Your task to perform on an android device: Go to ESPN.com Image 0: 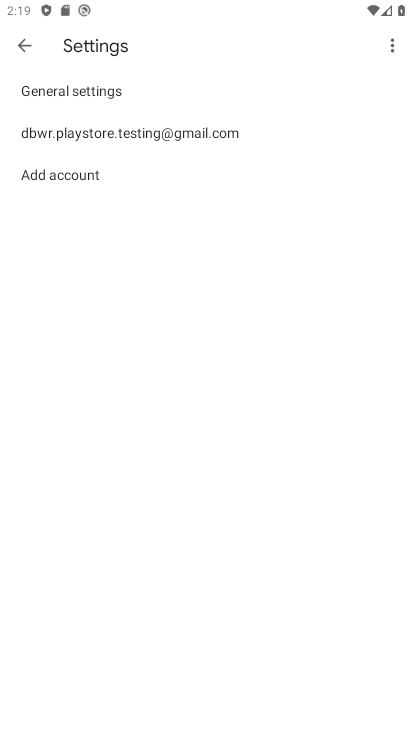
Step 0: press home button
Your task to perform on an android device: Go to ESPN.com Image 1: 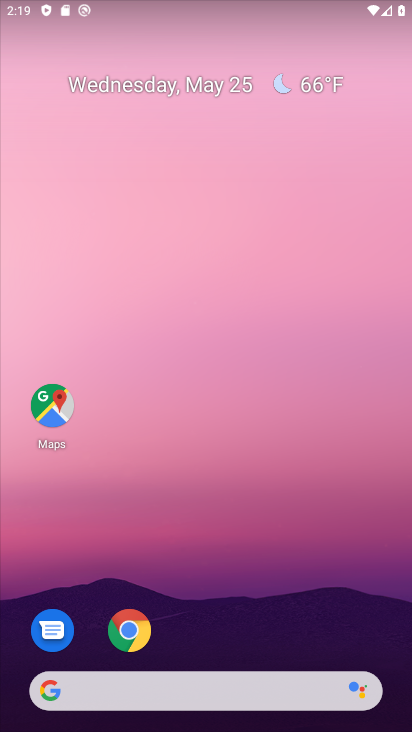
Step 1: click (127, 623)
Your task to perform on an android device: Go to ESPN.com Image 2: 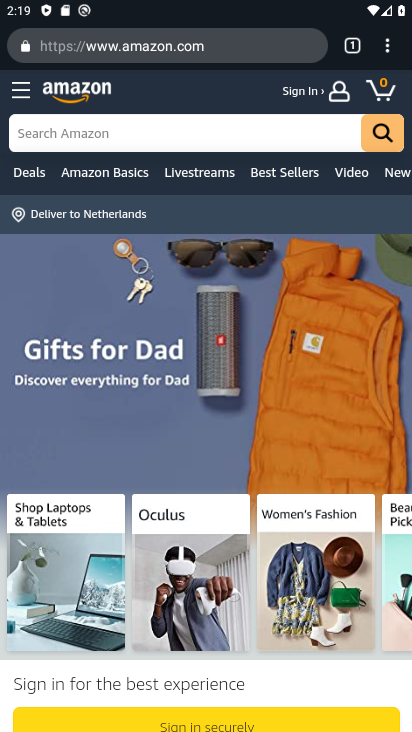
Step 2: click (351, 46)
Your task to perform on an android device: Go to ESPN.com Image 3: 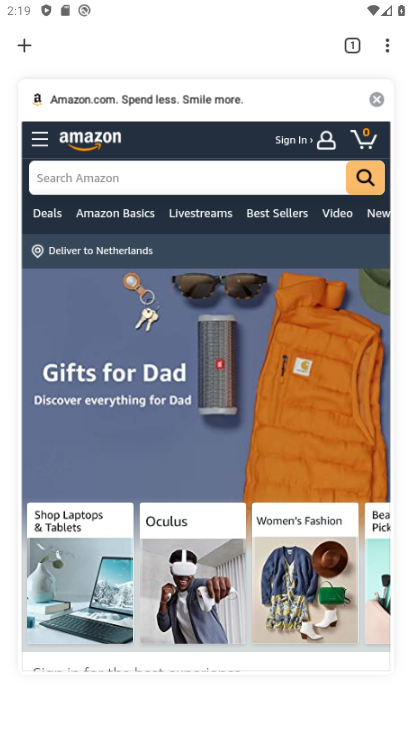
Step 3: click (374, 96)
Your task to perform on an android device: Go to ESPN.com Image 4: 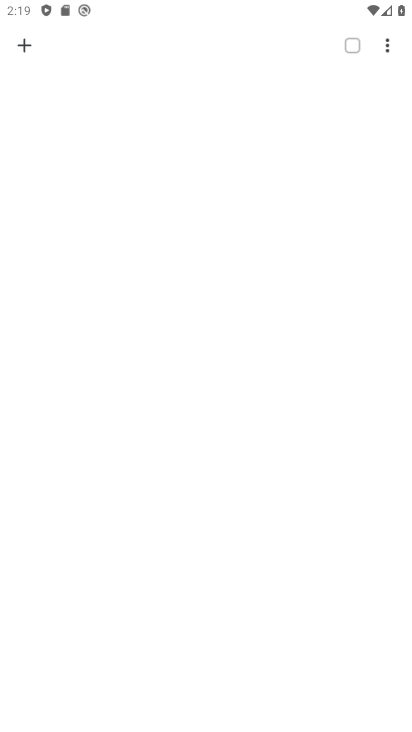
Step 4: click (26, 46)
Your task to perform on an android device: Go to ESPN.com Image 5: 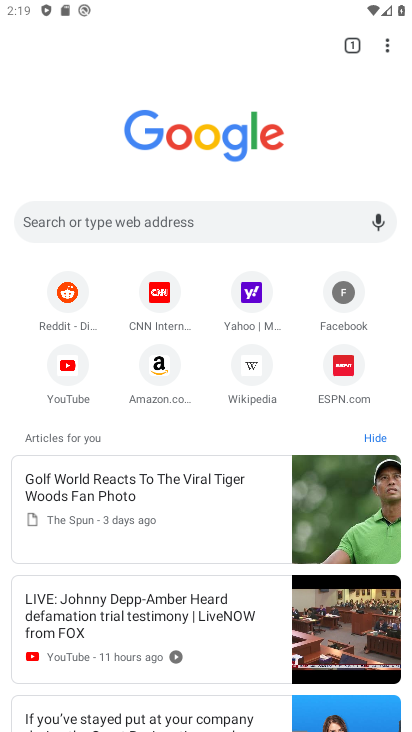
Step 5: click (337, 357)
Your task to perform on an android device: Go to ESPN.com Image 6: 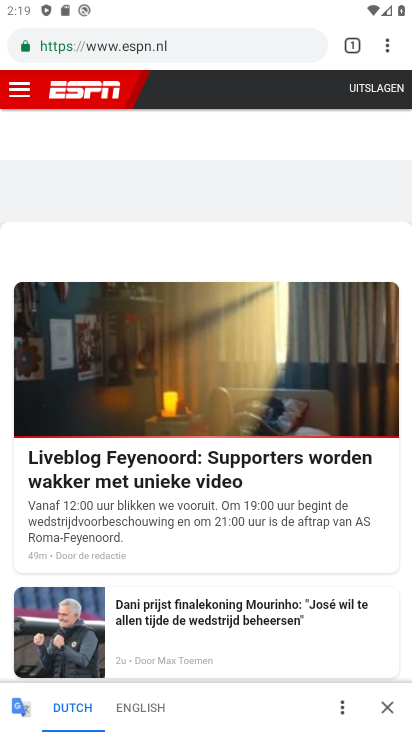
Step 6: drag from (204, 565) to (244, 176)
Your task to perform on an android device: Go to ESPN.com Image 7: 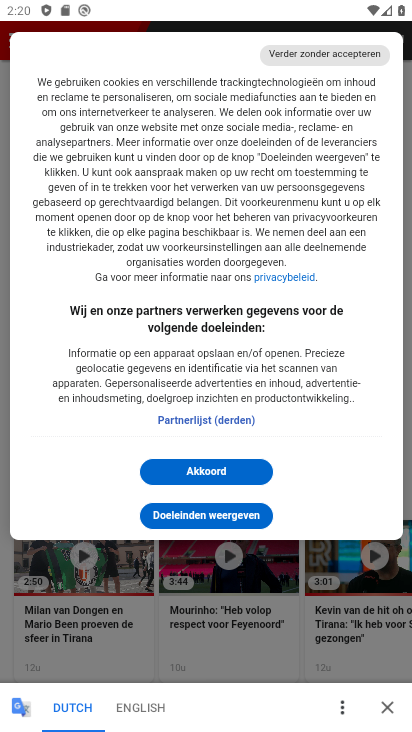
Step 7: click (208, 461)
Your task to perform on an android device: Go to ESPN.com Image 8: 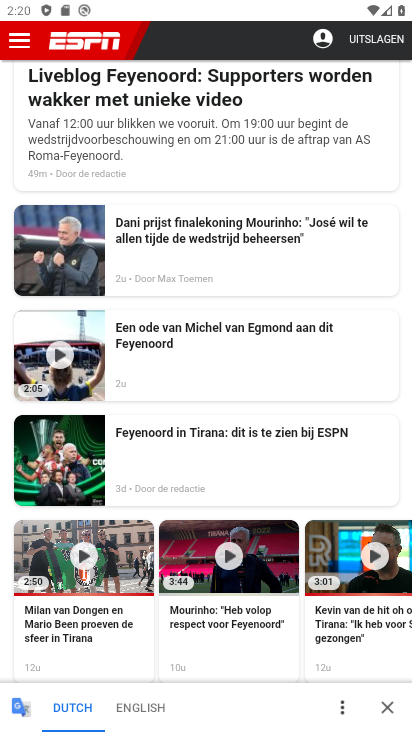
Step 8: task complete